Your task to perform on an android device: toggle notifications settings in the gmail app Image 0: 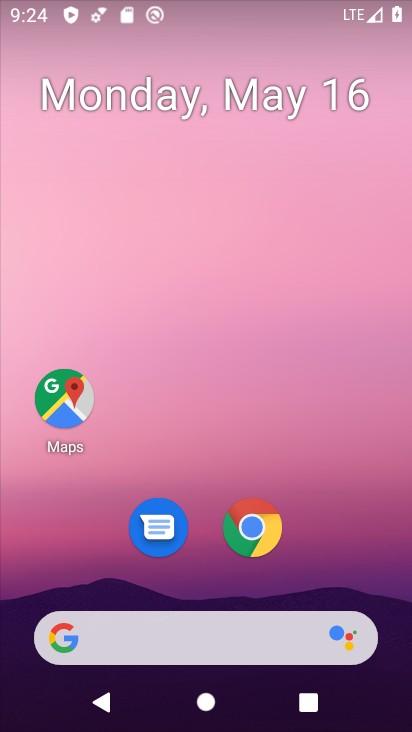
Step 0: drag from (353, 544) to (350, 21)
Your task to perform on an android device: toggle notifications settings in the gmail app Image 1: 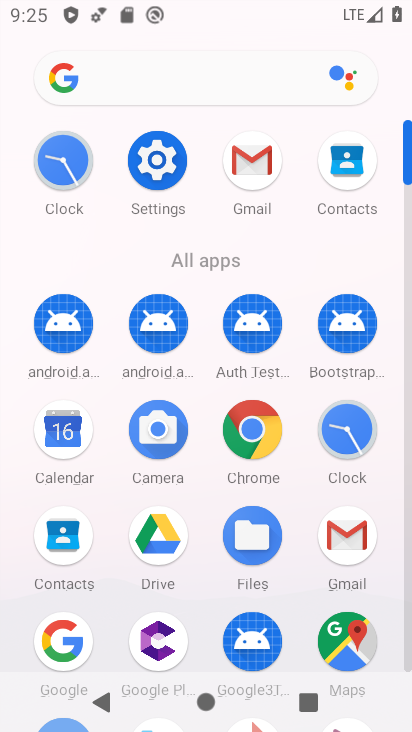
Step 1: click (252, 167)
Your task to perform on an android device: toggle notifications settings in the gmail app Image 2: 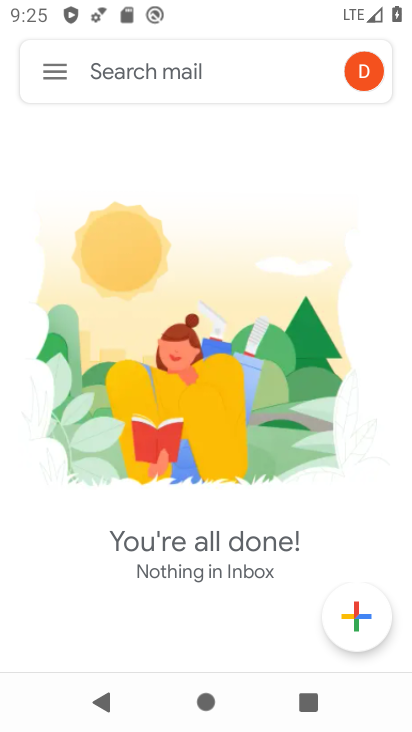
Step 2: click (60, 74)
Your task to perform on an android device: toggle notifications settings in the gmail app Image 3: 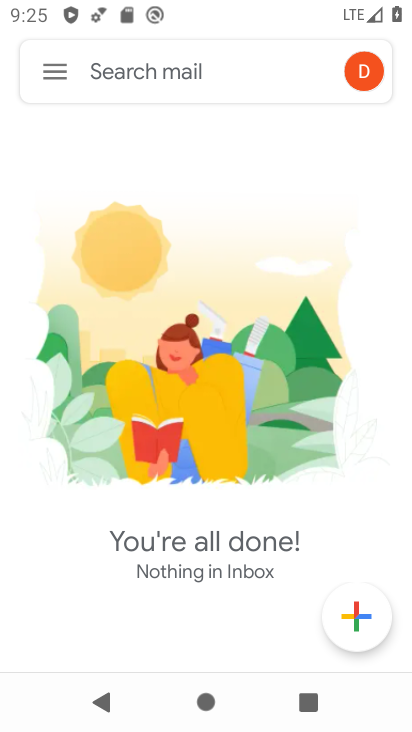
Step 3: click (56, 69)
Your task to perform on an android device: toggle notifications settings in the gmail app Image 4: 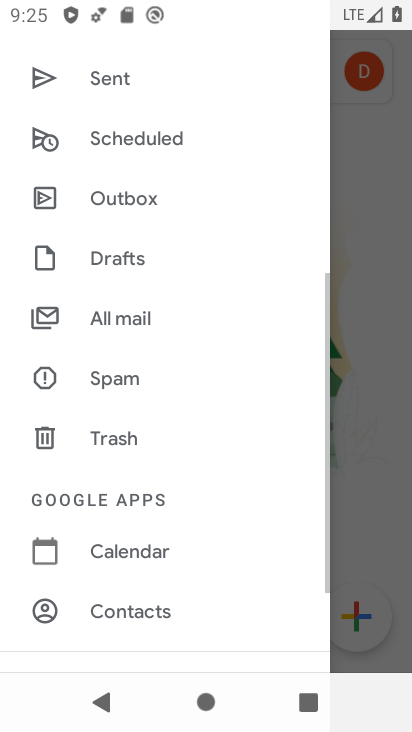
Step 4: drag from (215, 562) to (196, 41)
Your task to perform on an android device: toggle notifications settings in the gmail app Image 5: 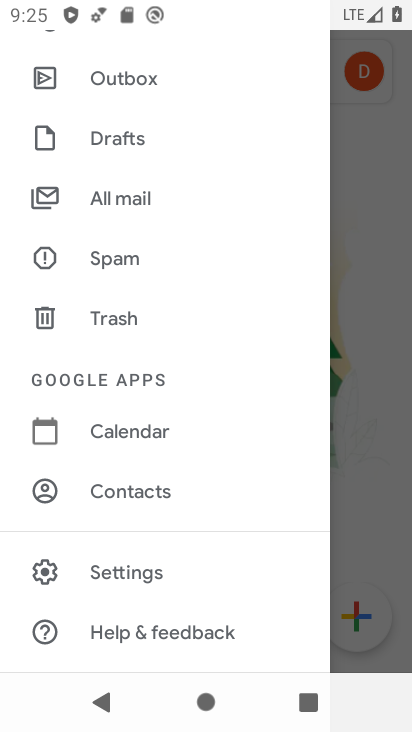
Step 5: click (106, 575)
Your task to perform on an android device: toggle notifications settings in the gmail app Image 6: 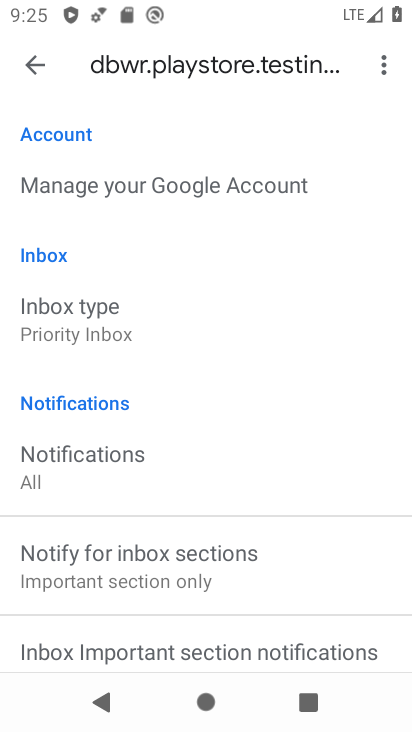
Step 6: click (40, 65)
Your task to perform on an android device: toggle notifications settings in the gmail app Image 7: 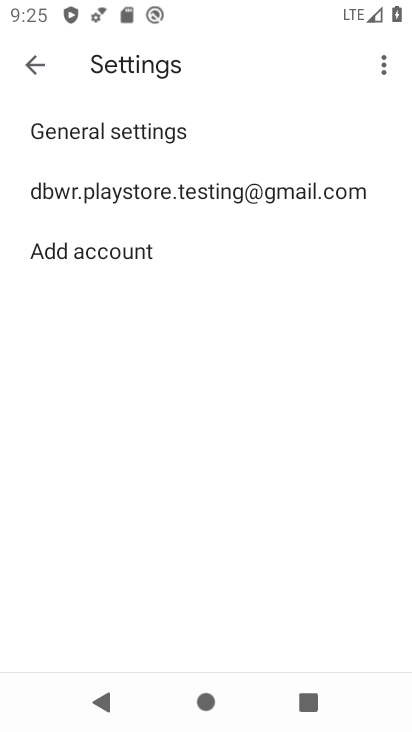
Step 7: click (95, 121)
Your task to perform on an android device: toggle notifications settings in the gmail app Image 8: 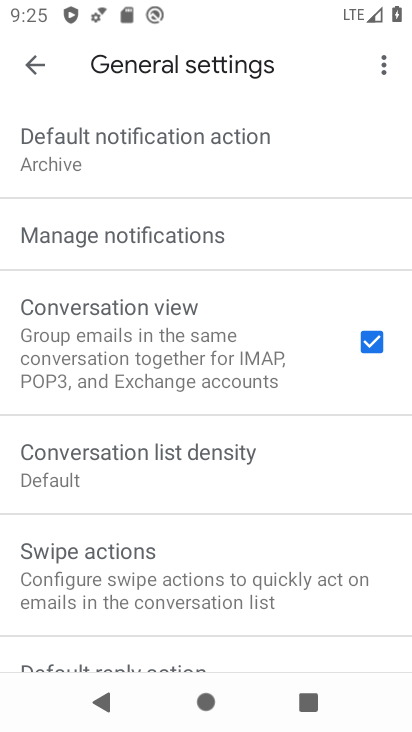
Step 8: click (100, 248)
Your task to perform on an android device: toggle notifications settings in the gmail app Image 9: 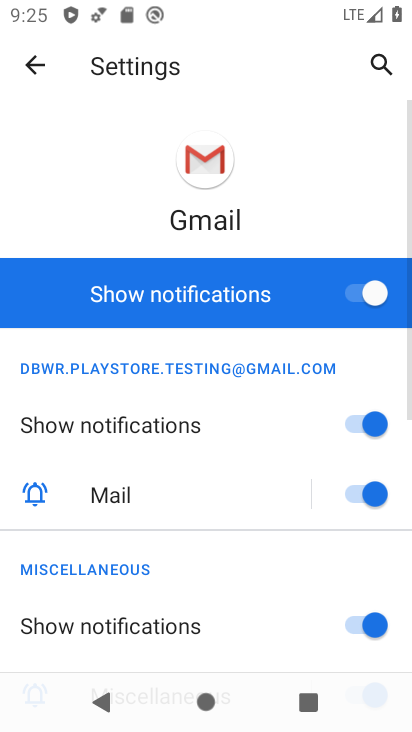
Step 9: click (370, 309)
Your task to perform on an android device: toggle notifications settings in the gmail app Image 10: 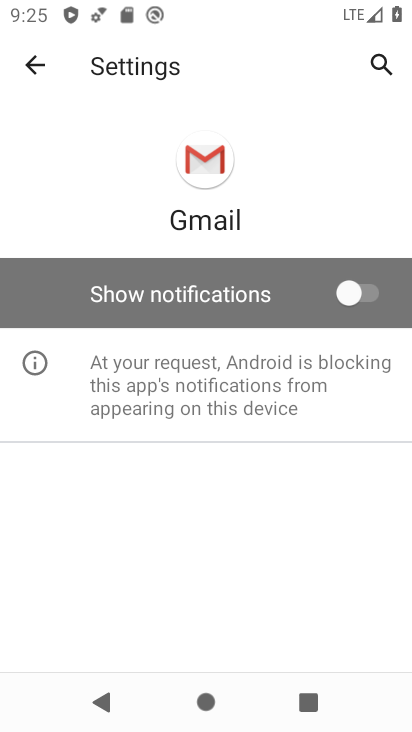
Step 10: task complete